Your task to perform on an android device: Open Yahoo.com Image 0: 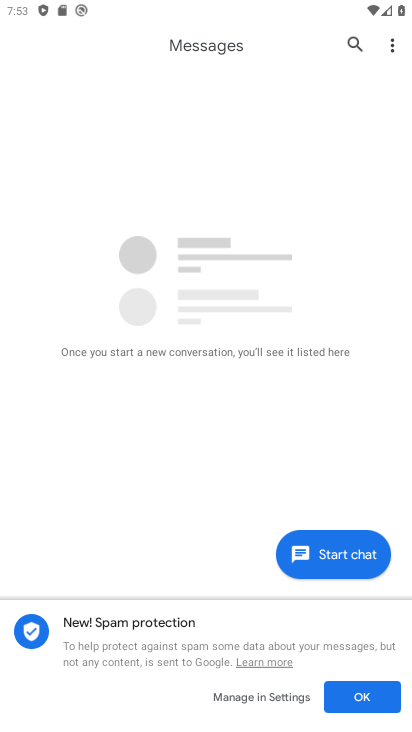
Step 0: press home button
Your task to perform on an android device: Open Yahoo.com Image 1: 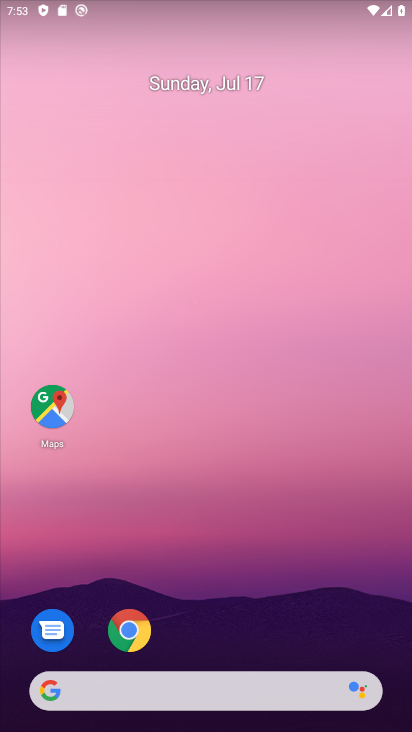
Step 1: click (100, 700)
Your task to perform on an android device: Open Yahoo.com Image 2: 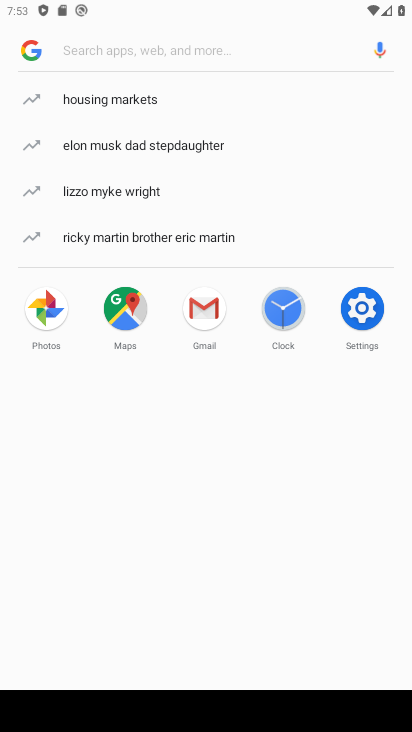
Step 2: type " Yahoo.com"
Your task to perform on an android device: Open Yahoo.com Image 3: 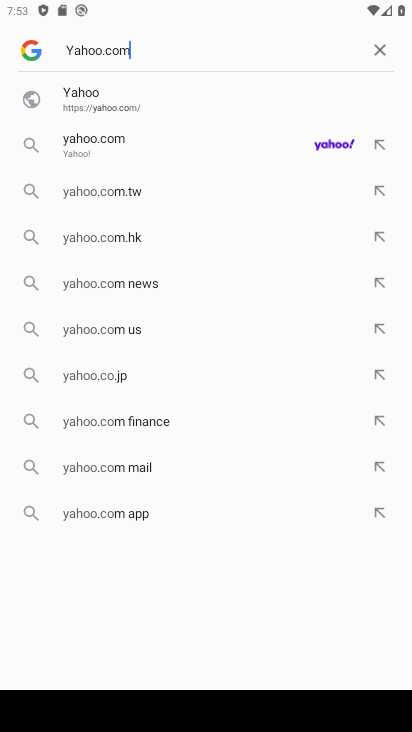
Step 3: type ""
Your task to perform on an android device: Open Yahoo.com Image 4: 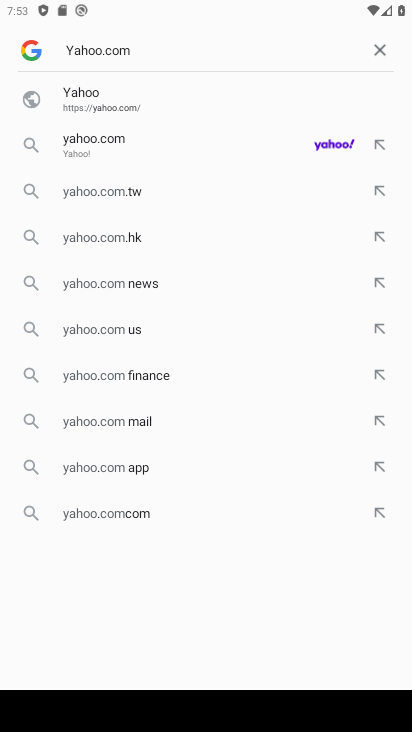
Step 4: click (103, 107)
Your task to perform on an android device: Open Yahoo.com Image 5: 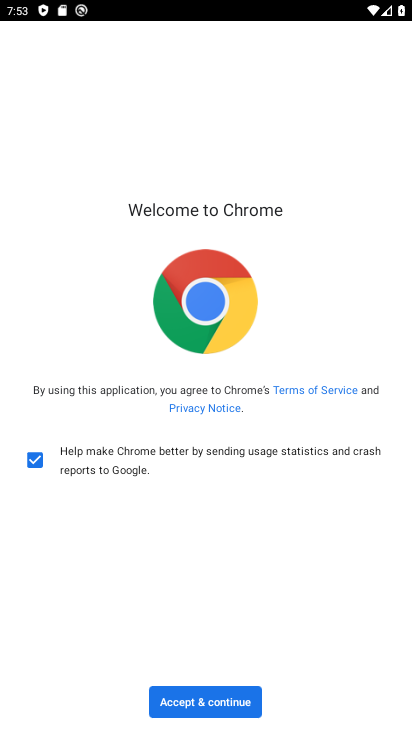
Step 5: task complete